Your task to perform on an android device: Show me the alarms in the clock app Image 0: 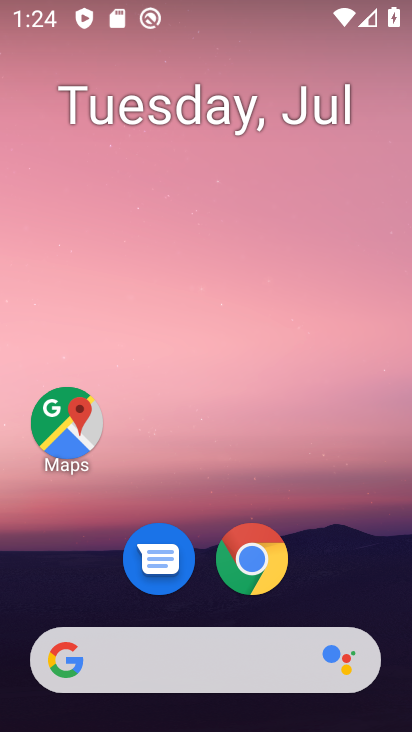
Step 0: drag from (325, 586) to (324, 168)
Your task to perform on an android device: Show me the alarms in the clock app Image 1: 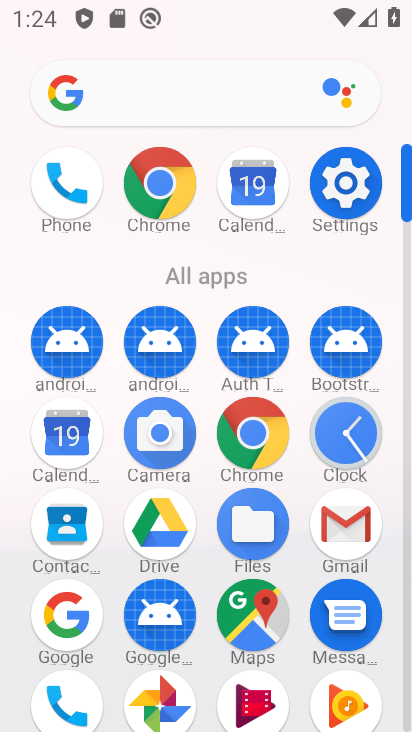
Step 1: click (354, 439)
Your task to perform on an android device: Show me the alarms in the clock app Image 2: 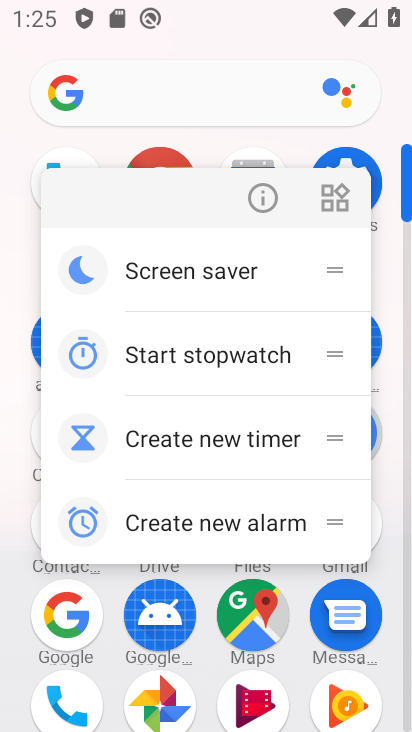
Step 2: click (383, 338)
Your task to perform on an android device: Show me the alarms in the clock app Image 3: 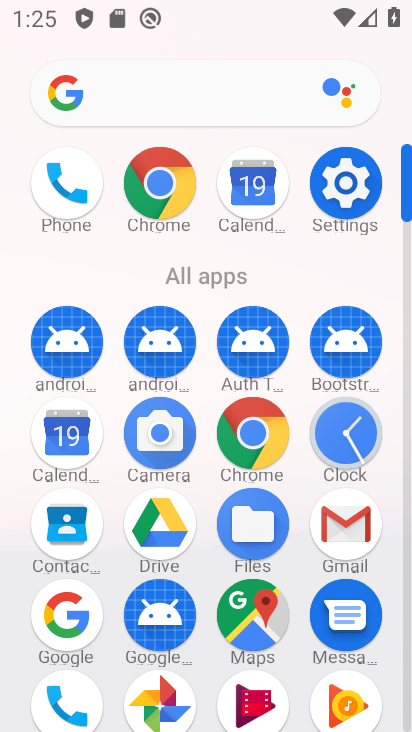
Step 3: click (358, 430)
Your task to perform on an android device: Show me the alarms in the clock app Image 4: 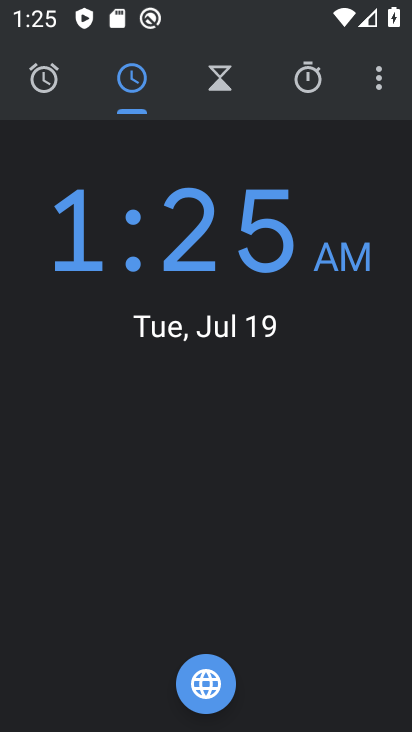
Step 4: click (43, 96)
Your task to perform on an android device: Show me the alarms in the clock app Image 5: 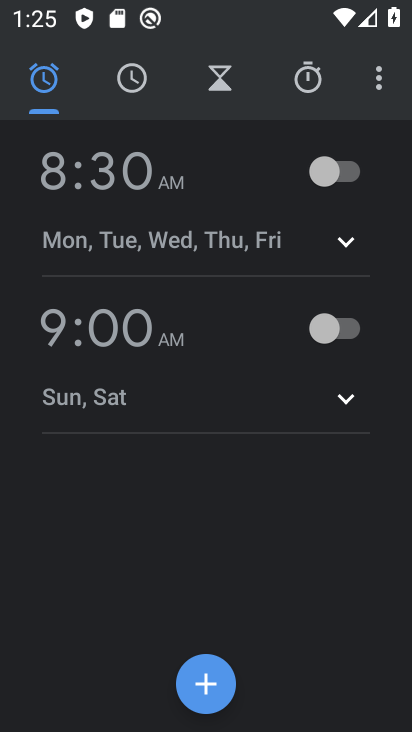
Step 5: task complete